Your task to perform on an android device: turn smart compose on in the gmail app Image 0: 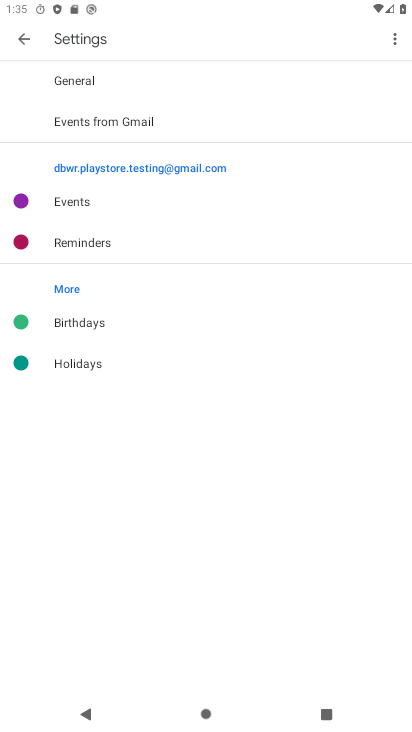
Step 0: press home button
Your task to perform on an android device: turn smart compose on in the gmail app Image 1: 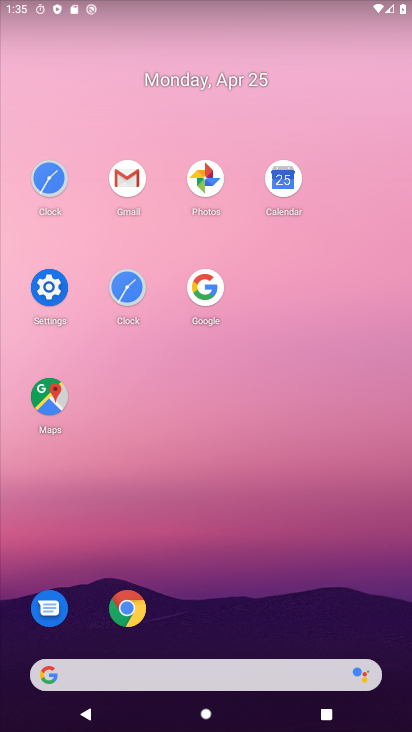
Step 1: click (118, 177)
Your task to perform on an android device: turn smart compose on in the gmail app Image 2: 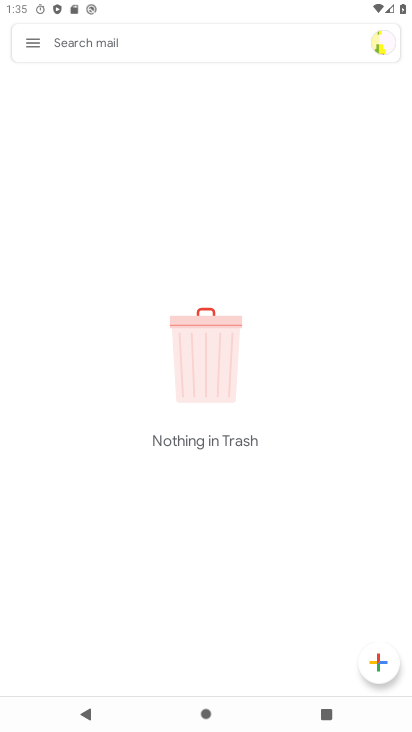
Step 2: click (36, 46)
Your task to perform on an android device: turn smart compose on in the gmail app Image 3: 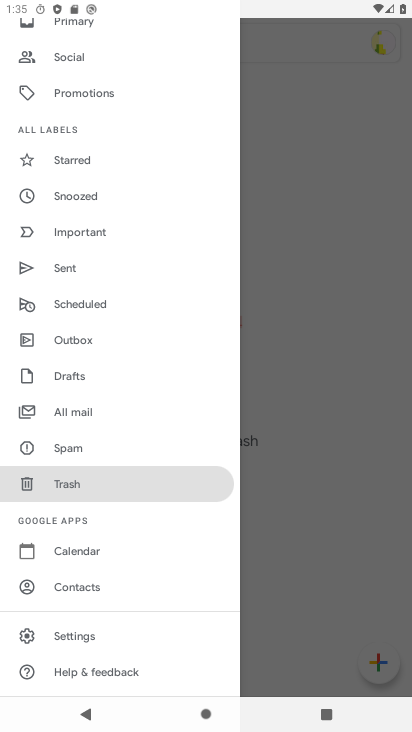
Step 3: click (75, 635)
Your task to perform on an android device: turn smart compose on in the gmail app Image 4: 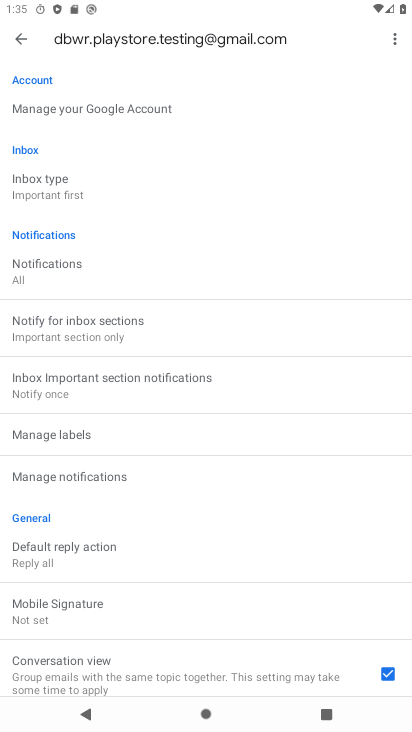
Step 4: task complete